Your task to perform on an android device: turn vacation reply on in the gmail app Image 0: 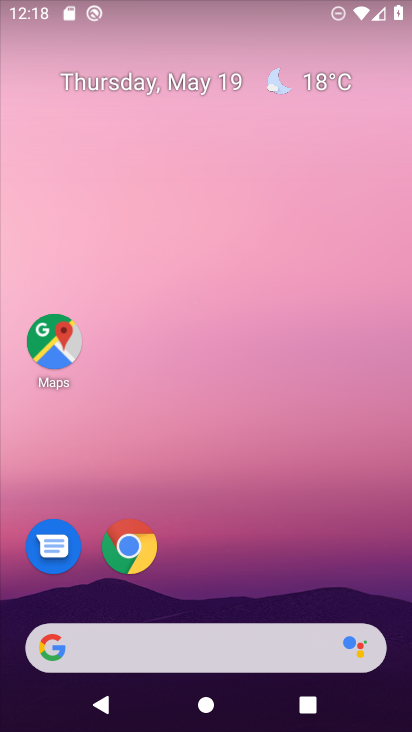
Step 0: drag from (235, 687) to (238, 198)
Your task to perform on an android device: turn vacation reply on in the gmail app Image 1: 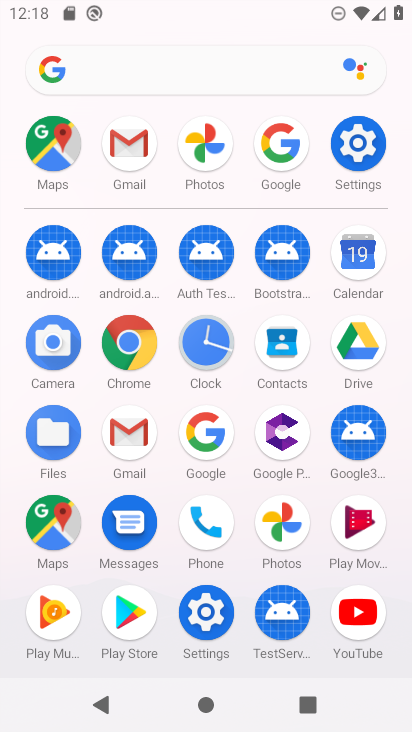
Step 1: click (132, 426)
Your task to perform on an android device: turn vacation reply on in the gmail app Image 2: 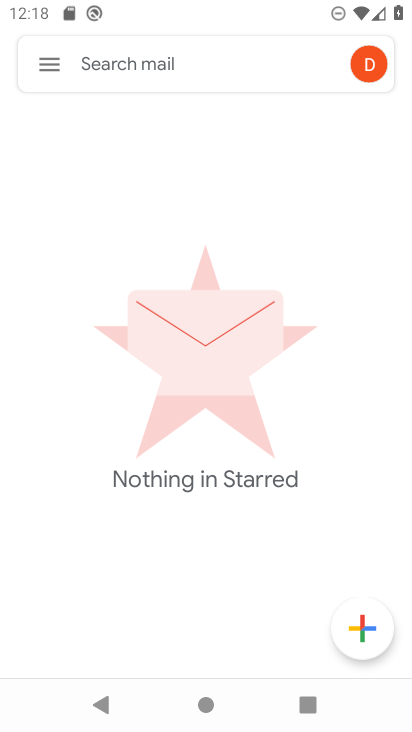
Step 2: click (47, 67)
Your task to perform on an android device: turn vacation reply on in the gmail app Image 3: 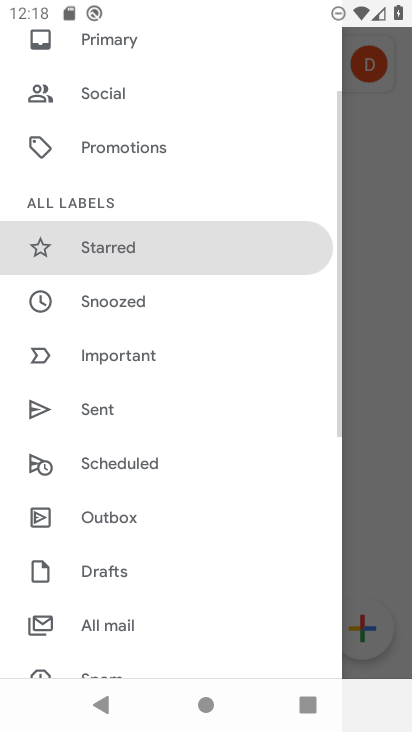
Step 3: drag from (143, 646) to (146, 308)
Your task to perform on an android device: turn vacation reply on in the gmail app Image 4: 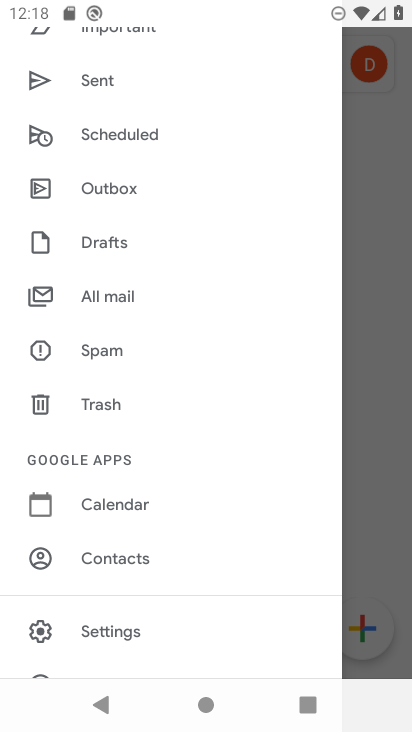
Step 4: click (127, 630)
Your task to perform on an android device: turn vacation reply on in the gmail app Image 5: 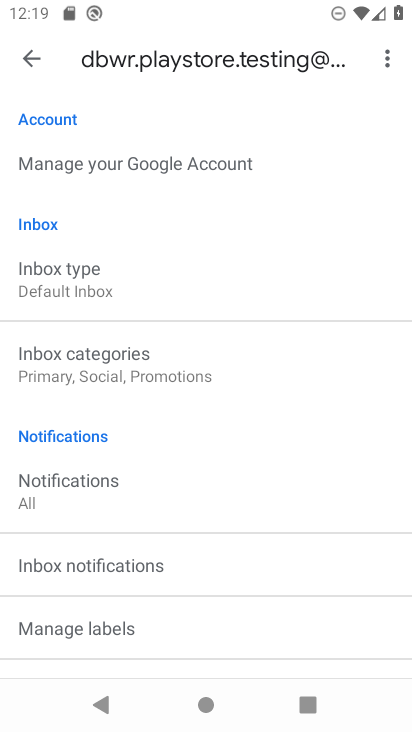
Step 5: click (156, 614)
Your task to perform on an android device: turn vacation reply on in the gmail app Image 6: 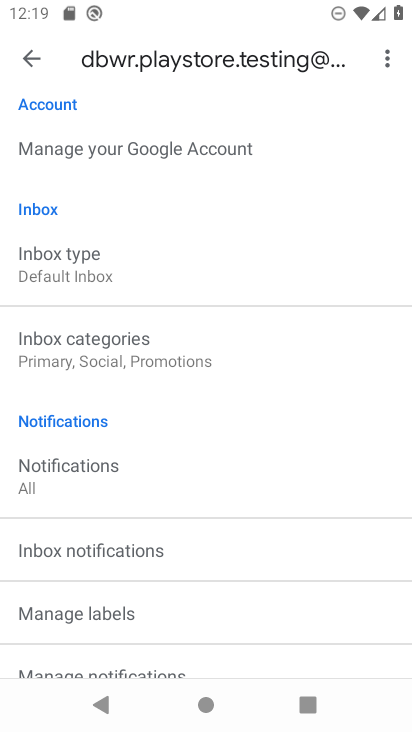
Step 6: drag from (134, 244) to (139, 454)
Your task to perform on an android device: turn vacation reply on in the gmail app Image 7: 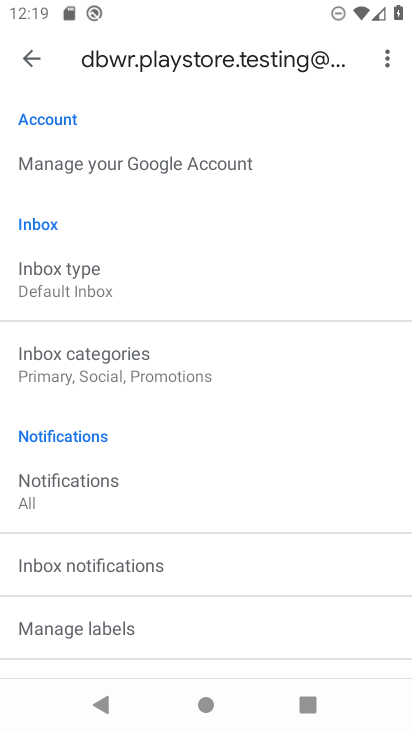
Step 7: drag from (144, 635) to (146, 229)
Your task to perform on an android device: turn vacation reply on in the gmail app Image 8: 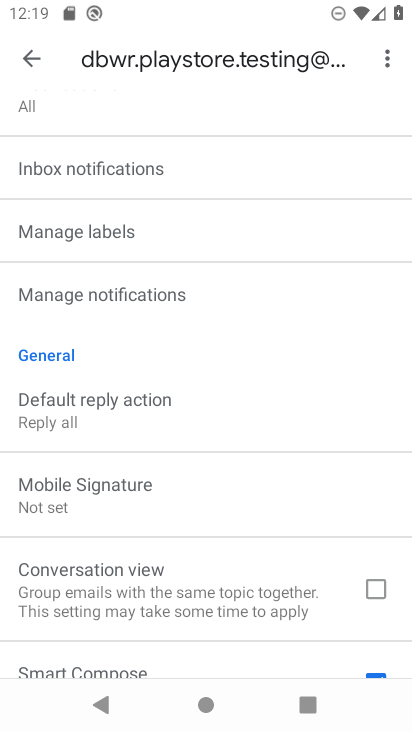
Step 8: drag from (172, 619) to (167, 237)
Your task to perform on an android device: turn vacation reply on in the gmail app Image 9: 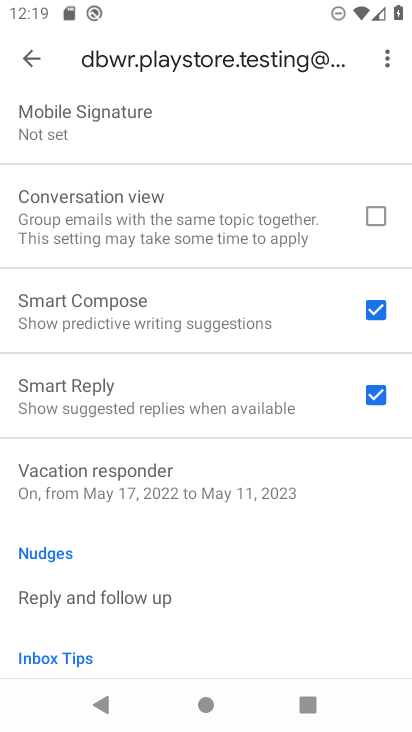
Step 9: click (165, 483)
Your task to perform on an android device: turn vacation reply on in the gmail app Image 10: 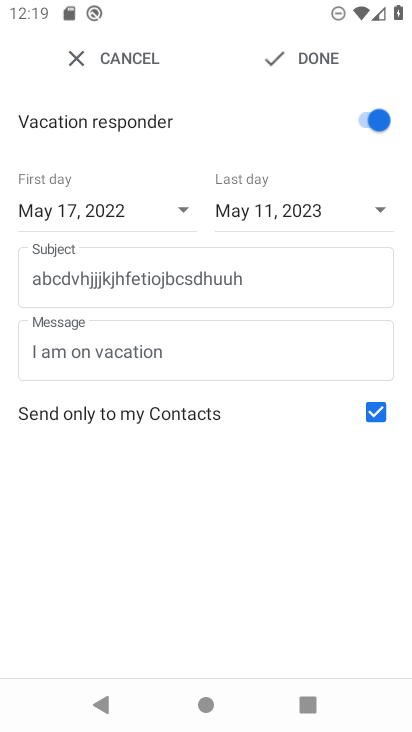
Step 10: task complete